Your task to perform on an android device: Show me popular games on the Play Store Image 0: 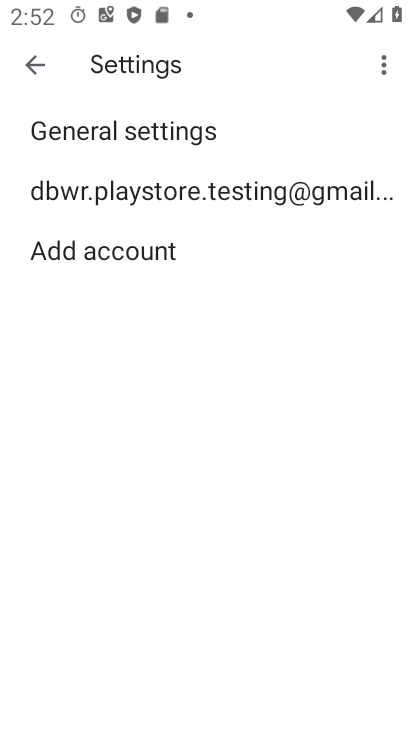
Step 0: press back button
Your task to perform on an android device: Show me popular games on the Play Store Image 1: 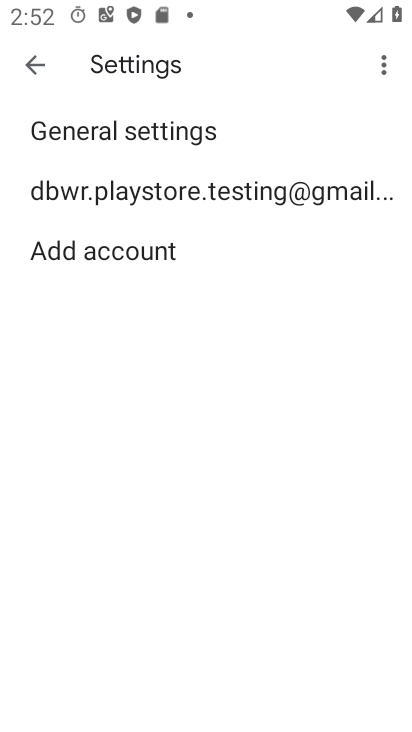
Step 1: press home button
Your task to perform on an android device: Show me popular games on the Play Store Image 2: 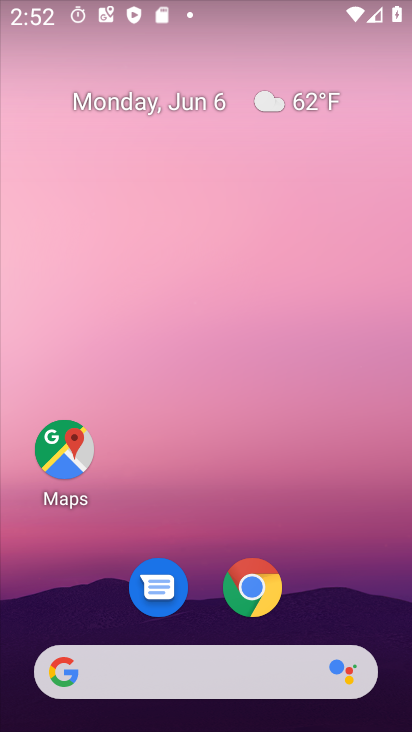
Step 2: drag from (338, 493) to (263, 23)
Your task to perform on an android device: Show me popular games on the Play Store Image 3: 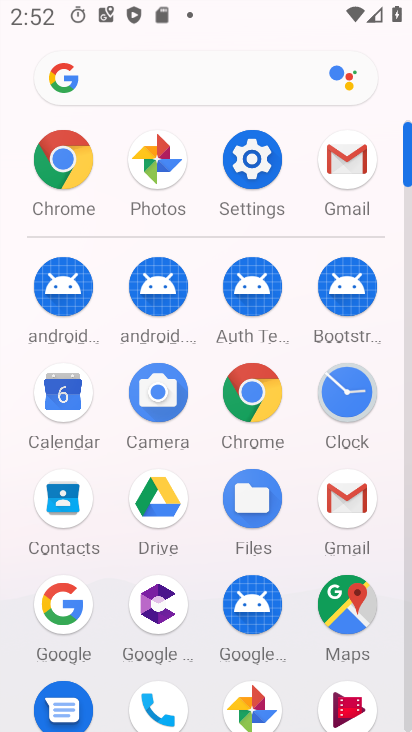
Step 3: drag from (22, 649) to (28, 282)
Your task to perform on an android device: Show me popular games on the Play Store Image 4: 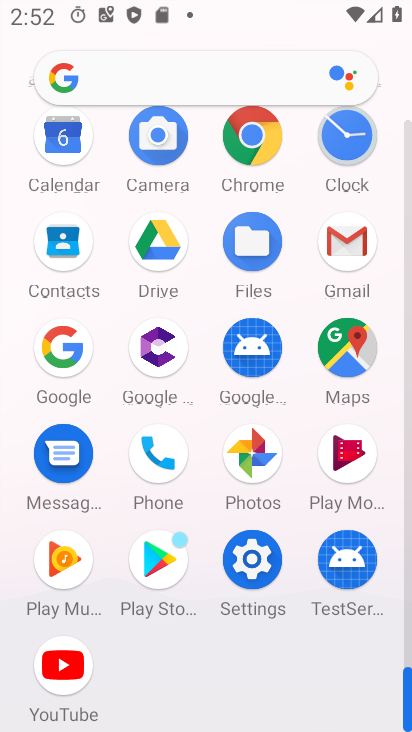
Step 4: drag from (16, 497) to (40, 206)
Your task to perform on an android device: Show me popular games on the Play Store Image 5: 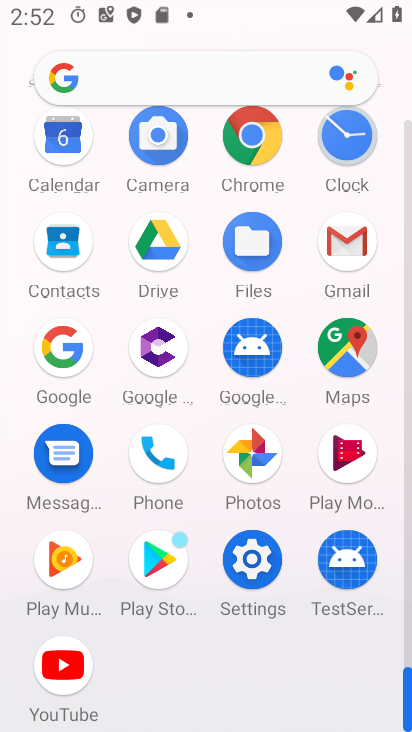
Step 5: click (160, 554)
Your task to perform on an android device: Show me popular games on the Play Store Image 6: 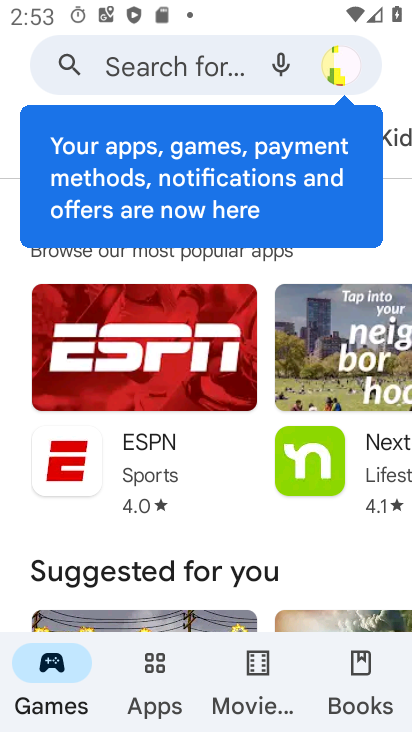
Step 6: task complete